Your task to perform on an android device: Clear the shopping cart on ebay.com. Add "bose quietcomfort 35" to the cart on ebay.com, then select checkout. Image 0: 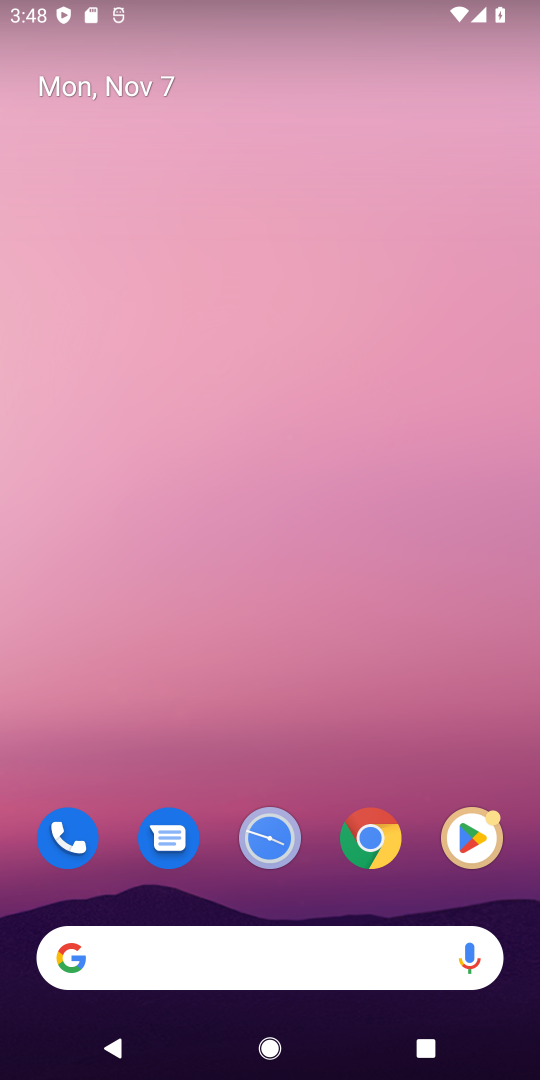
Step 0: click (368, 840)
Your task to perform on an android device: Clear the shopping cart on ebay.com. Add "bose quietcomfort 35" to the cart on ebay.com, then select checkout. Image 1: 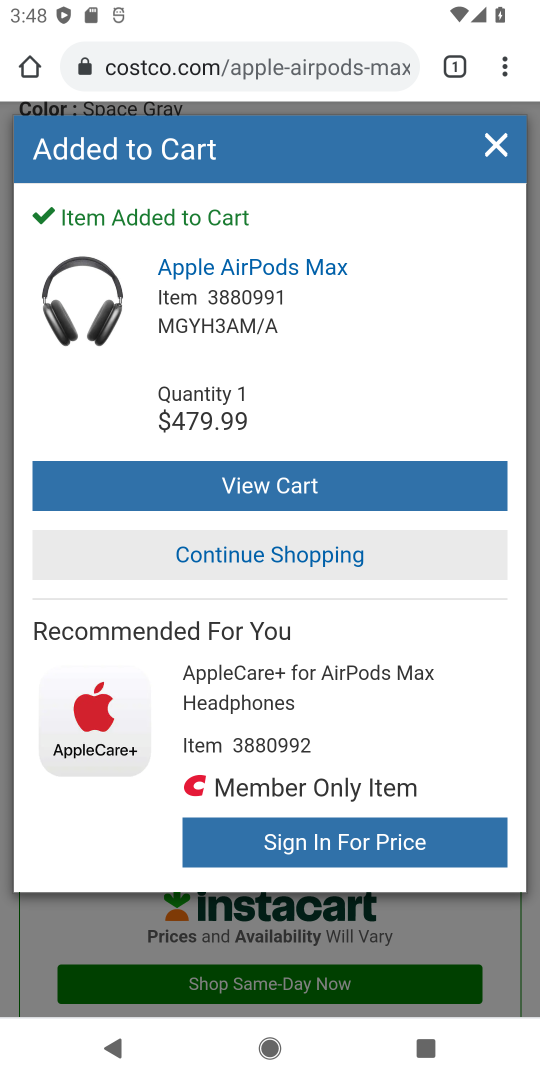
Step 1: click (461, 61)
Your task to perform on an android device: Clear the shopping cart on ebay.com. Add "bose quietcomfort 35" to the cart on ebay.com, then select checkout. Image 2: 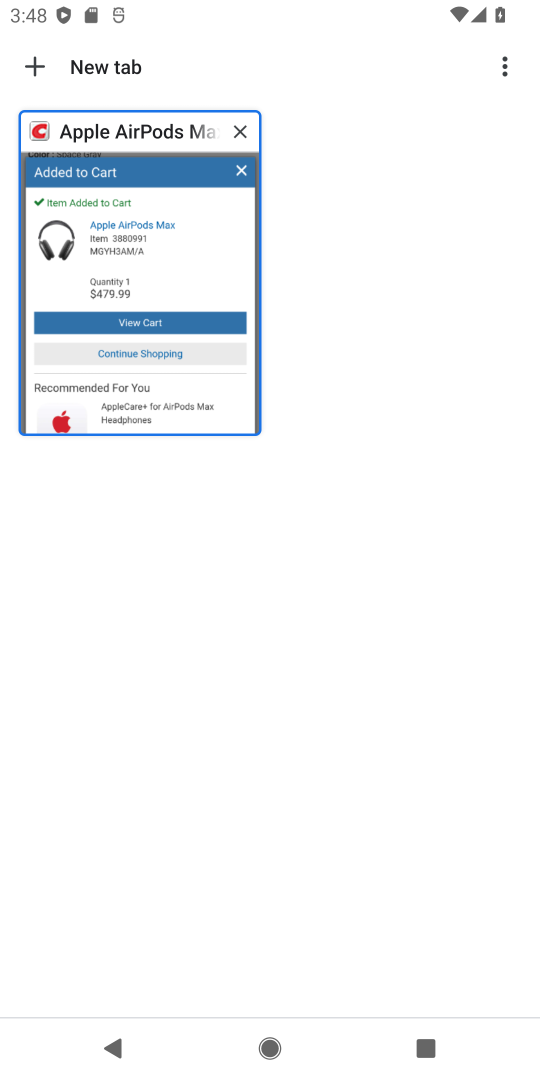
Step 2: click (28, 78)
Your task to perform on an android device: Clear the shopping cart on ebay.com. Add "bose quietcomfort 35" to the cart on ebay.com, then select checkout. Image 3: 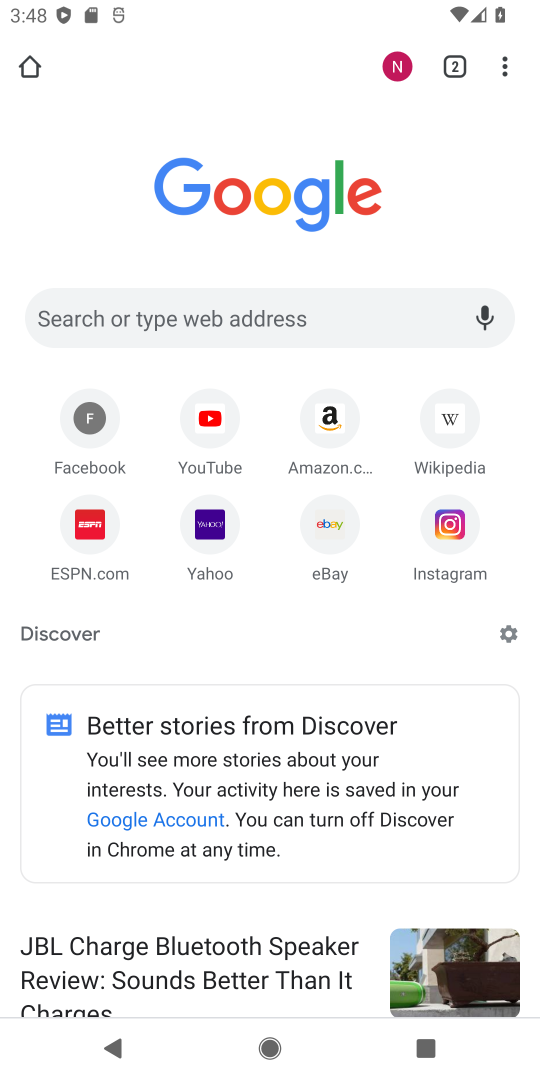
Step 3: click (342, 526)
Your task to perform on an android device: Clear the shopping cart on ebay.com. Add "bose quietcomfort 35" to the cart on ebay.com, then select checkout. Image 4: 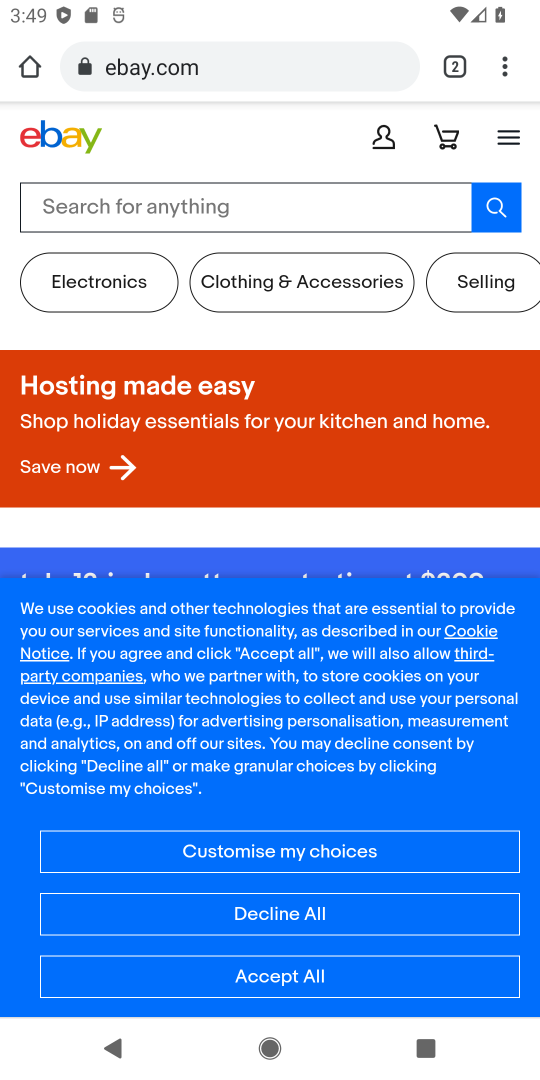
Step 4: click (332, 903)
Your task to perform on an android device: Clear the shopping cart on ebay.com. Add "bose quietcomfort 35" to the cart on ebay.com, then select checkout. Image 5: 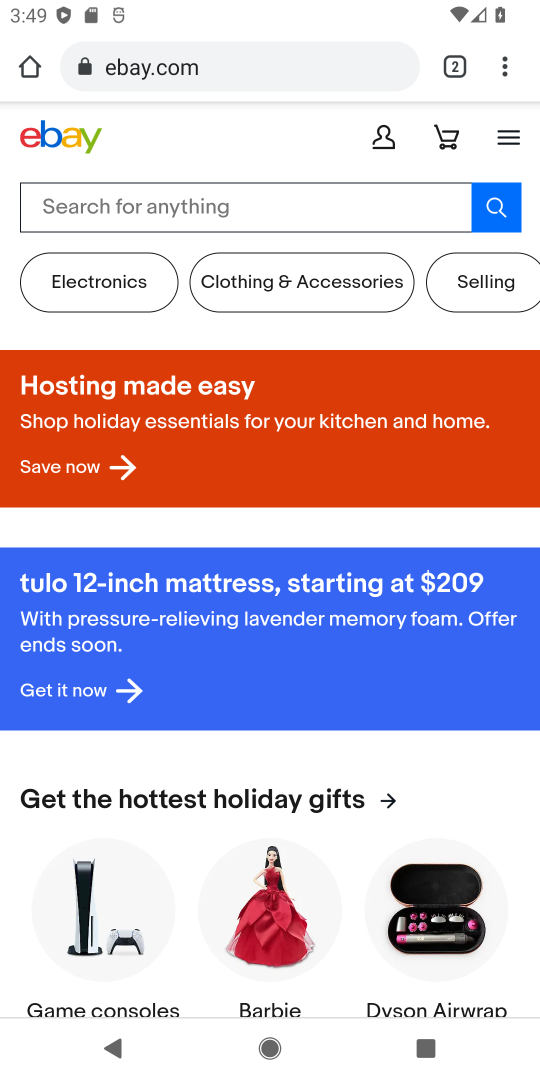
Step 5: click (279, 221)
Your task to perform on an android device: Clear the shopping cart on ebay.com. Add "bose quietcomfort 35" to the cart on ebay.com, then select checkout. Image 6: 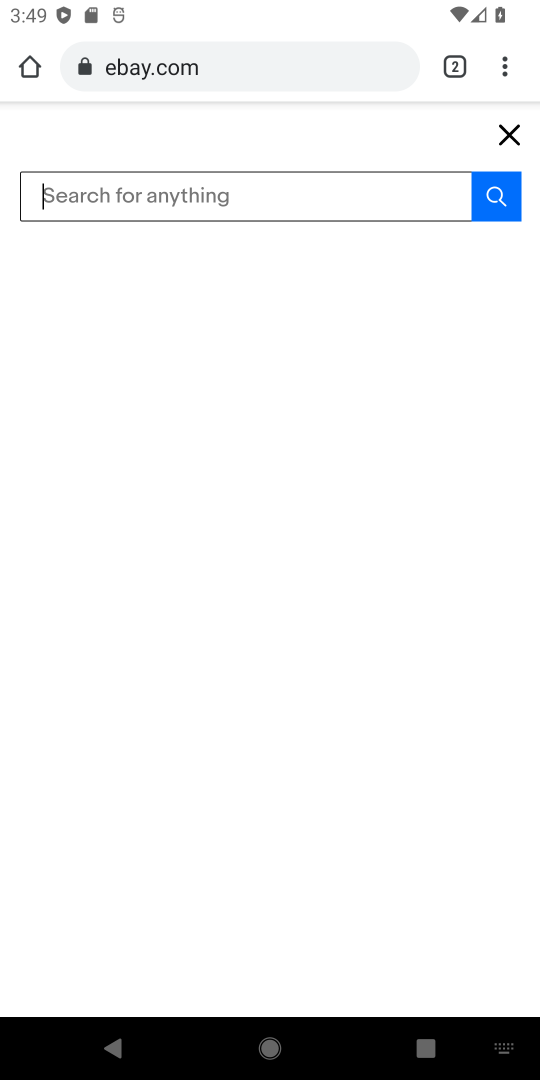
Step 6: type "bose quietcomfort 35"
Your task to perform on an android device: Clear the shopping cart on ebay.com. Add "bose quietcomfort 35" to the cart on ebay.com, then select checkout. Image 7: 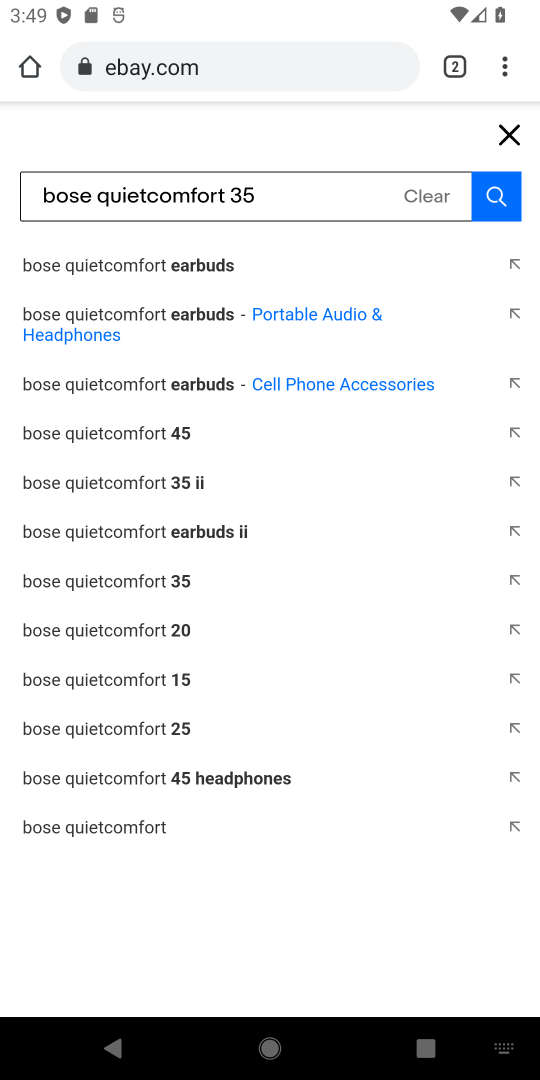
Step 7: click (99, 307)
Your task to perform on an android device: Clear the shopping cart on ebay.com. Add "bose quietcomfort 35" to the cart on ebay.com, then select checkout. Image 8: 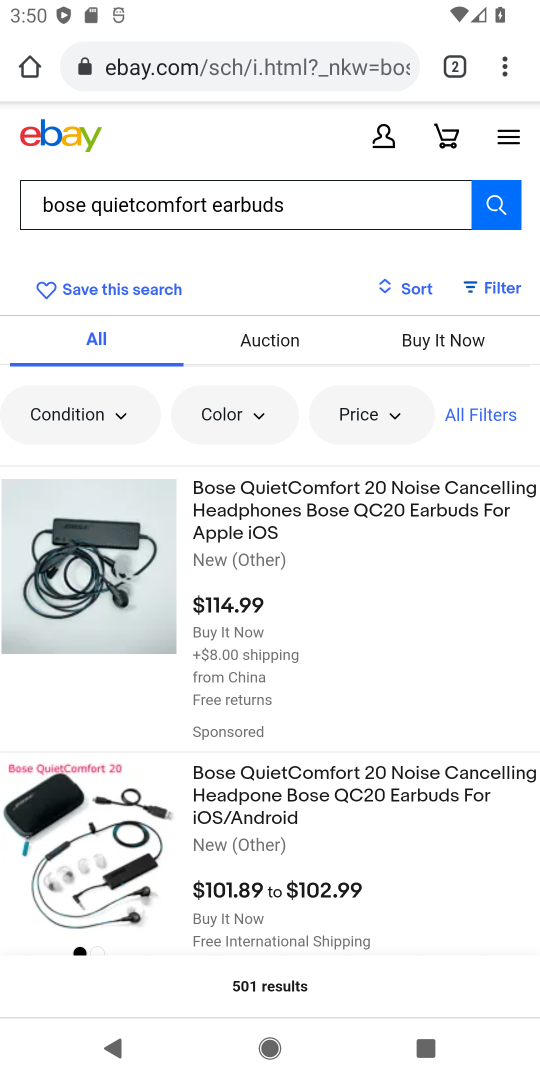
Step 8: click (366, 502)
Your task to perform on an android device: Clear the shopping cart on ebay.com. Add "bose quietcomfort 35" to the cart on ebay.com, then select checkout. Image 9: 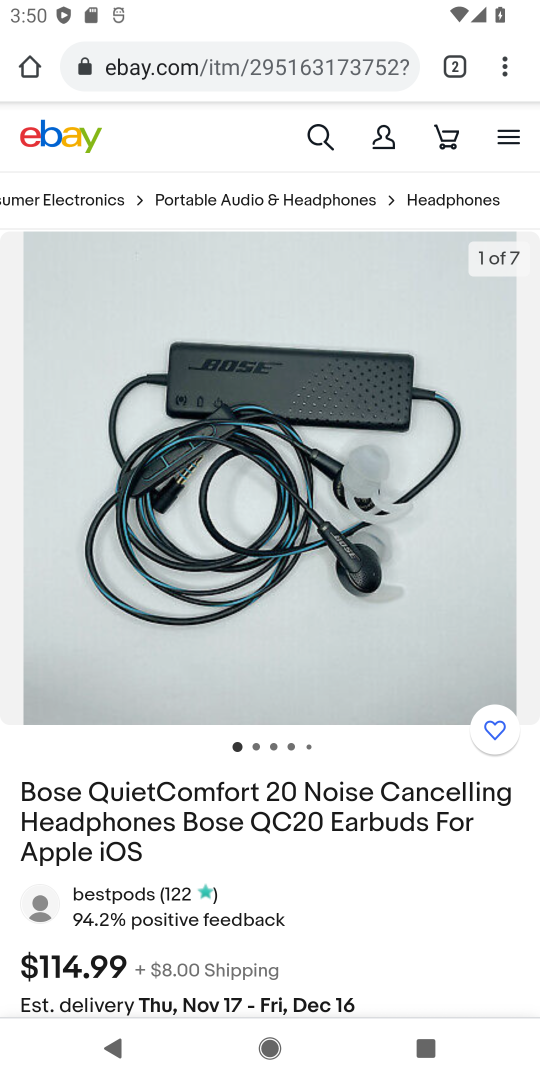
Step 9: drag from (321, 903) to (499, 63)
Your task to perform on an android device: Clear the shopping cart on ebay.com. Add "bose quietcomfort 35" to the cart on ebay.com, then select checkout. Image 10: 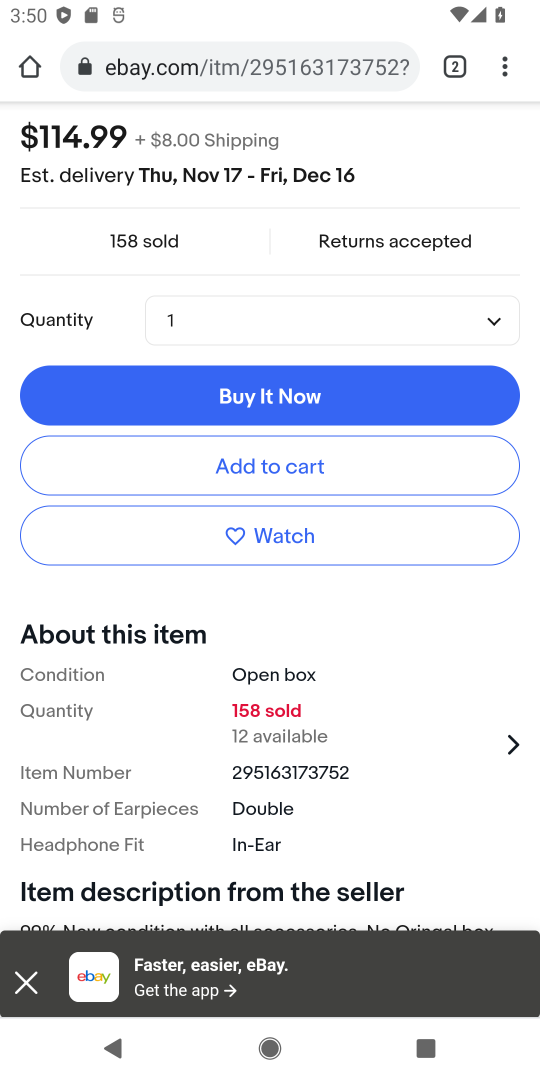
Step 10: click (276, 472)
Your task to perform on an android device: Clear the shopping cart on ebay.com. Add "bose quietcomfort 35" to the cart on ebay.com, then select checkout. Image 11: 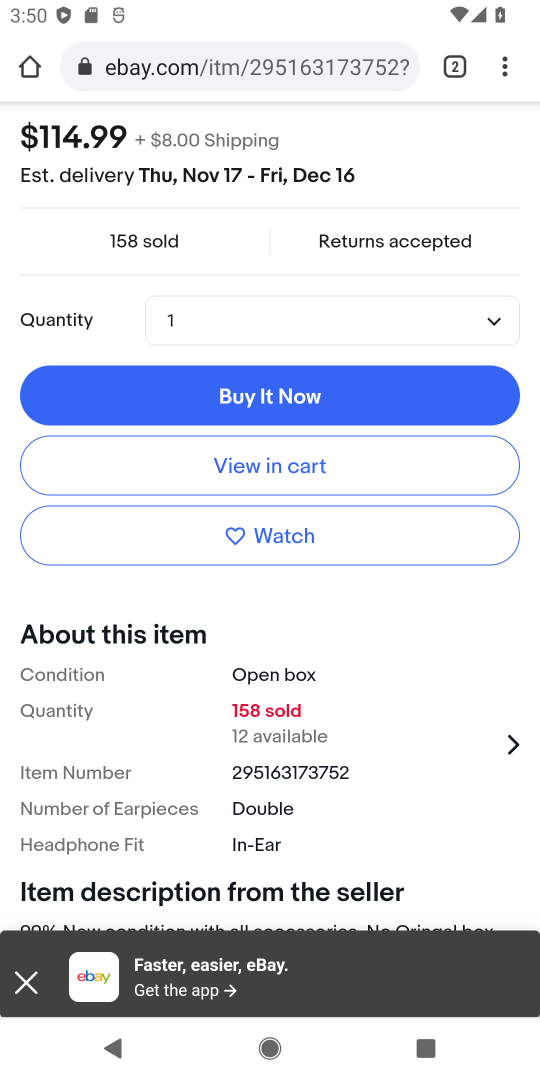
Step 11: task complete